Your task to perform on an android device: change the clock display to analog Image 0: 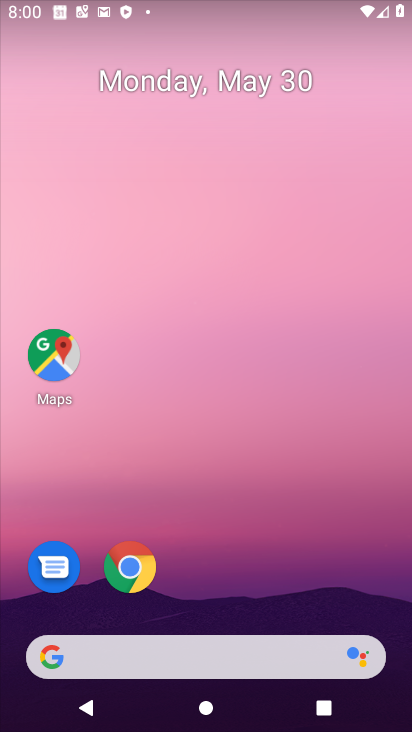
Step 0: drag from (235, 604) to (188, 82)
Your task to perform on an android device: change the clock display to analog Image 1: 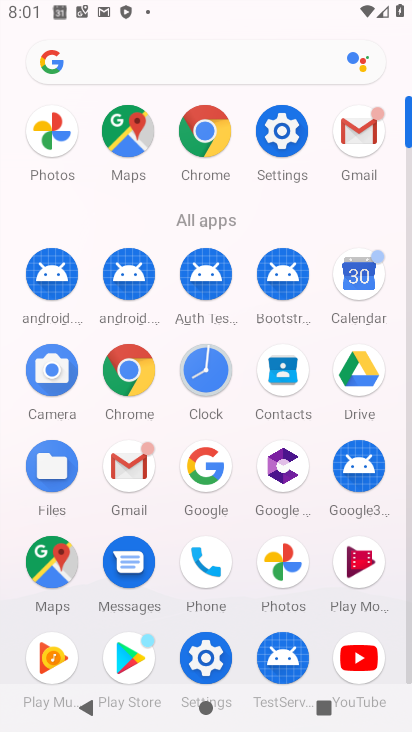
Step 1: click (216, 358)
Your task to perform on an android device: change the clock display to analog Image 2: 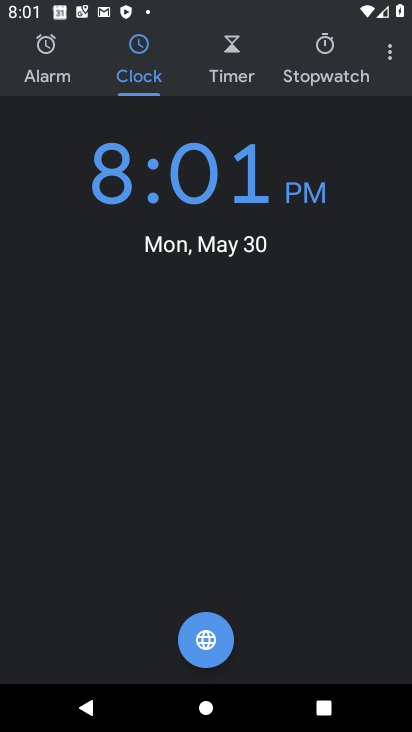
Step 2: click (390, 50)
Your task to perform on an android device: change the clock display to analog Image 3: 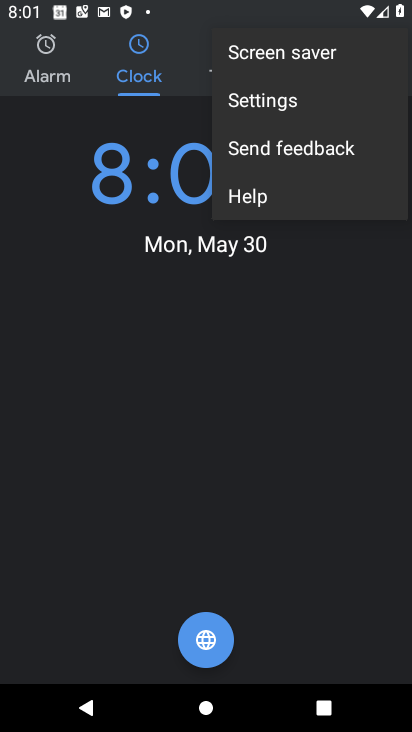
Step 3: click (322, 101)
Your task to perform on an android device: change the clock display to analog Image 4: 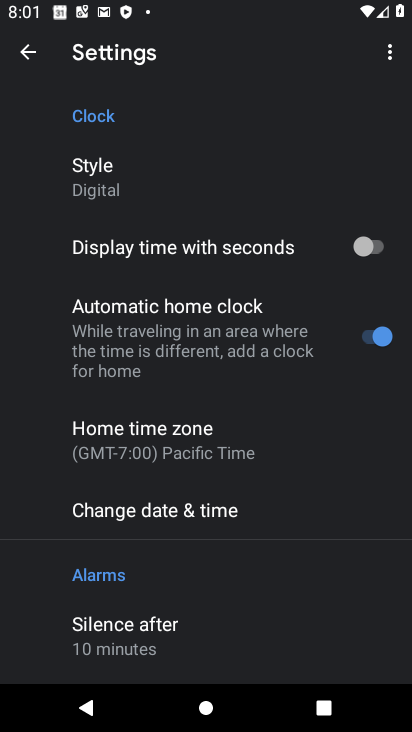
Step 4: click (177, 180)
Your task to perform on an android device: change the clock display to analog Image 5: 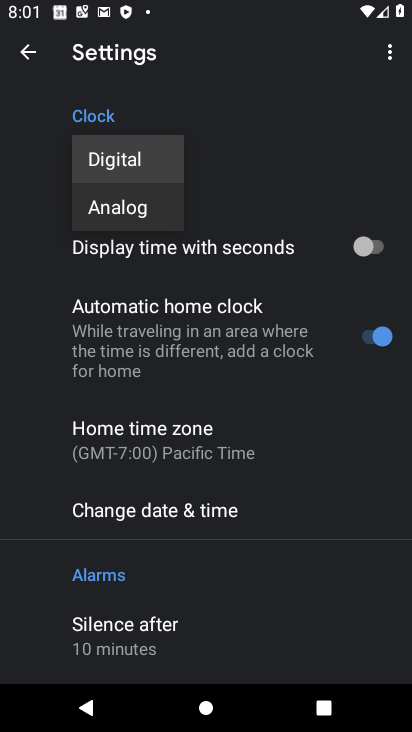
Step 5: click (142, 196)
Your task to perform on an android device: change the clock display to analog Image 6: 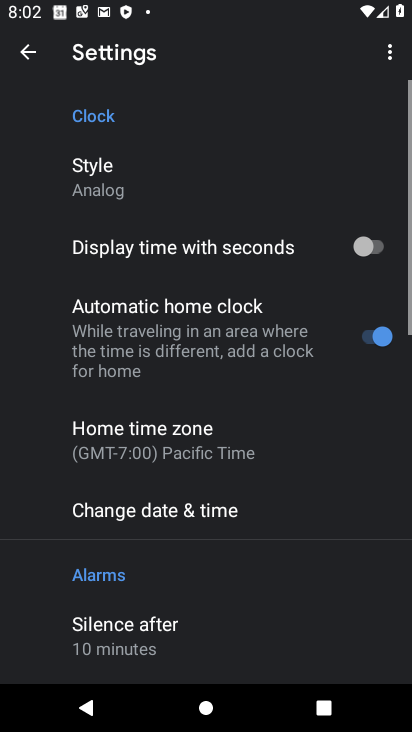
Step 6: task complete